Your task to perform on an android device: toggle data saver in the chrome app Image 0: 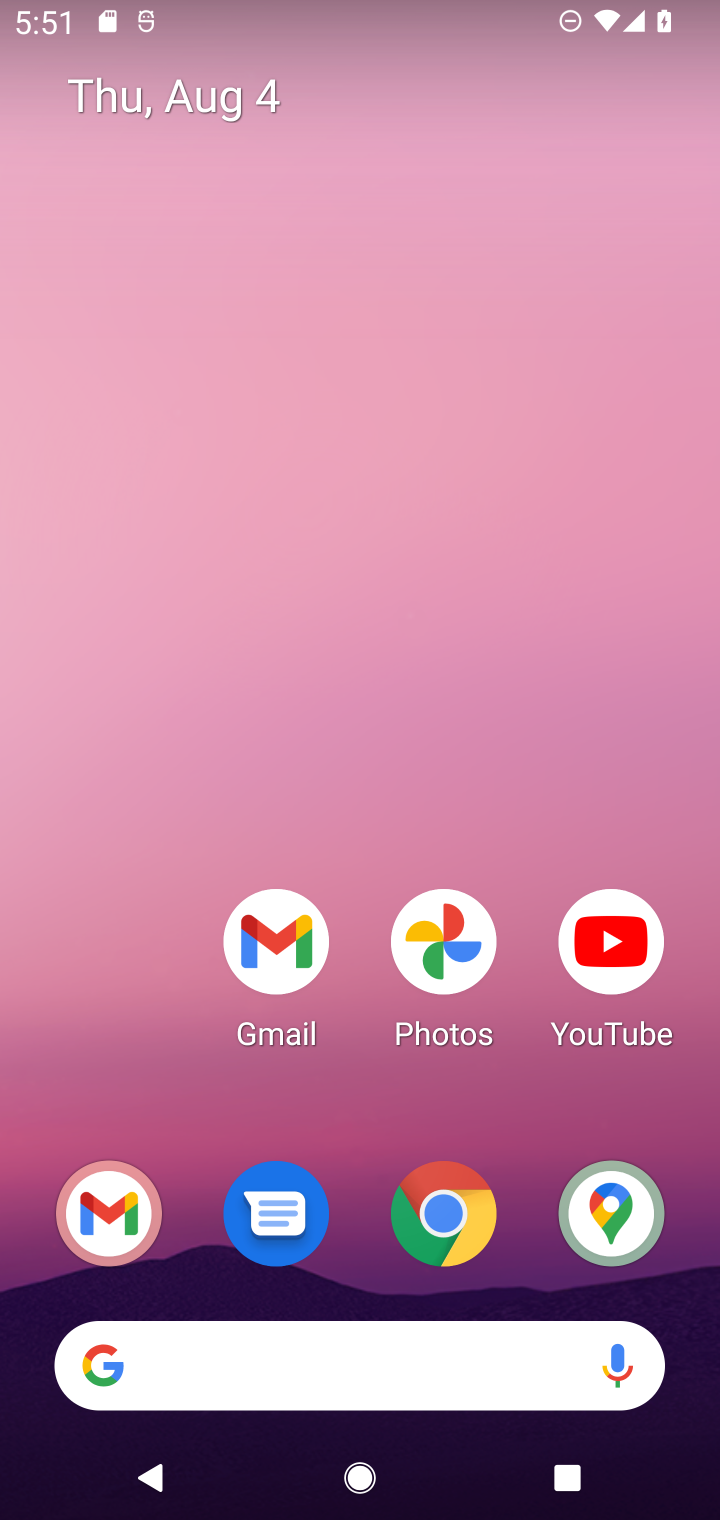
Step 0: press home button
Your task to perform on an android device: toggle data saver in the chrome app Image 1: 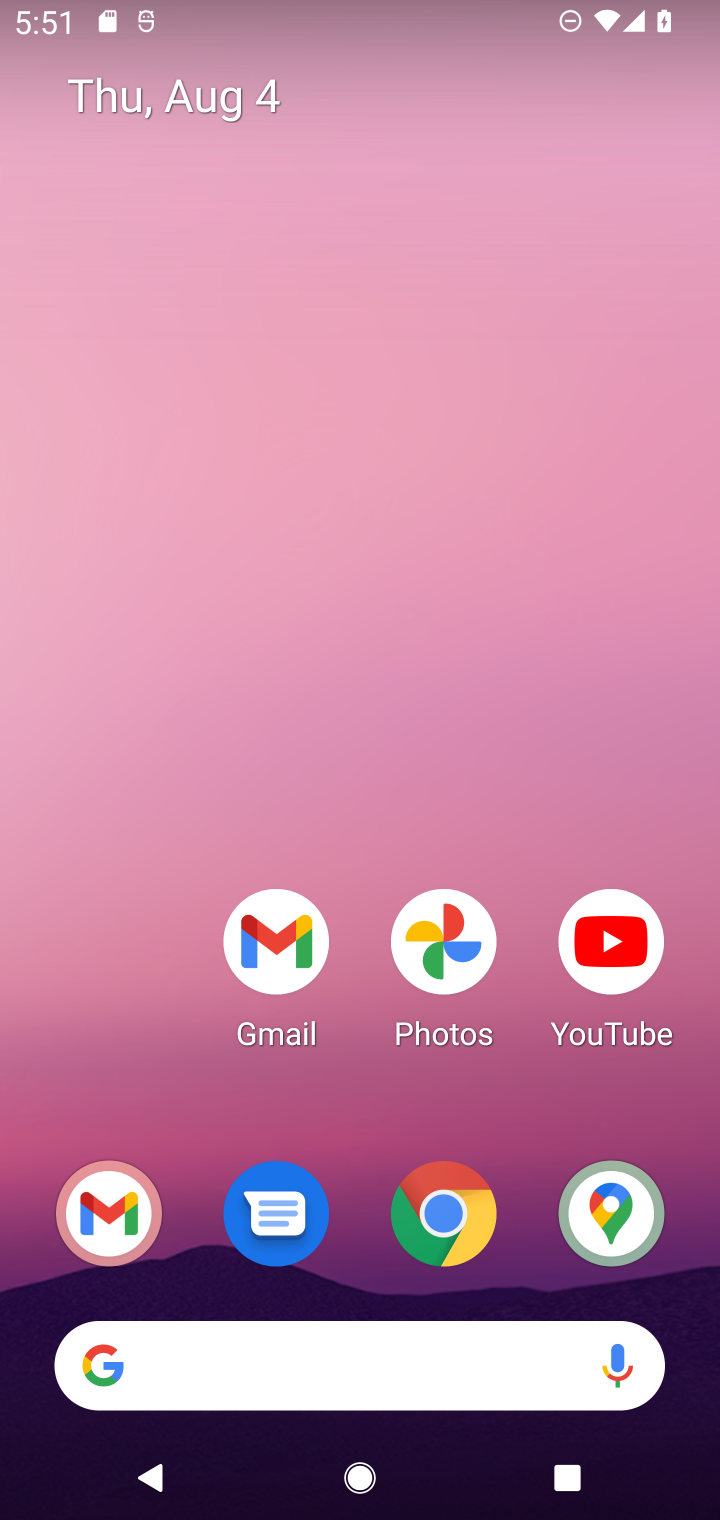
Step 1: drag from (162, 1052) to (183, 330)
Your task to perform on an android device: toggle data saver in the chrome app Image 2: 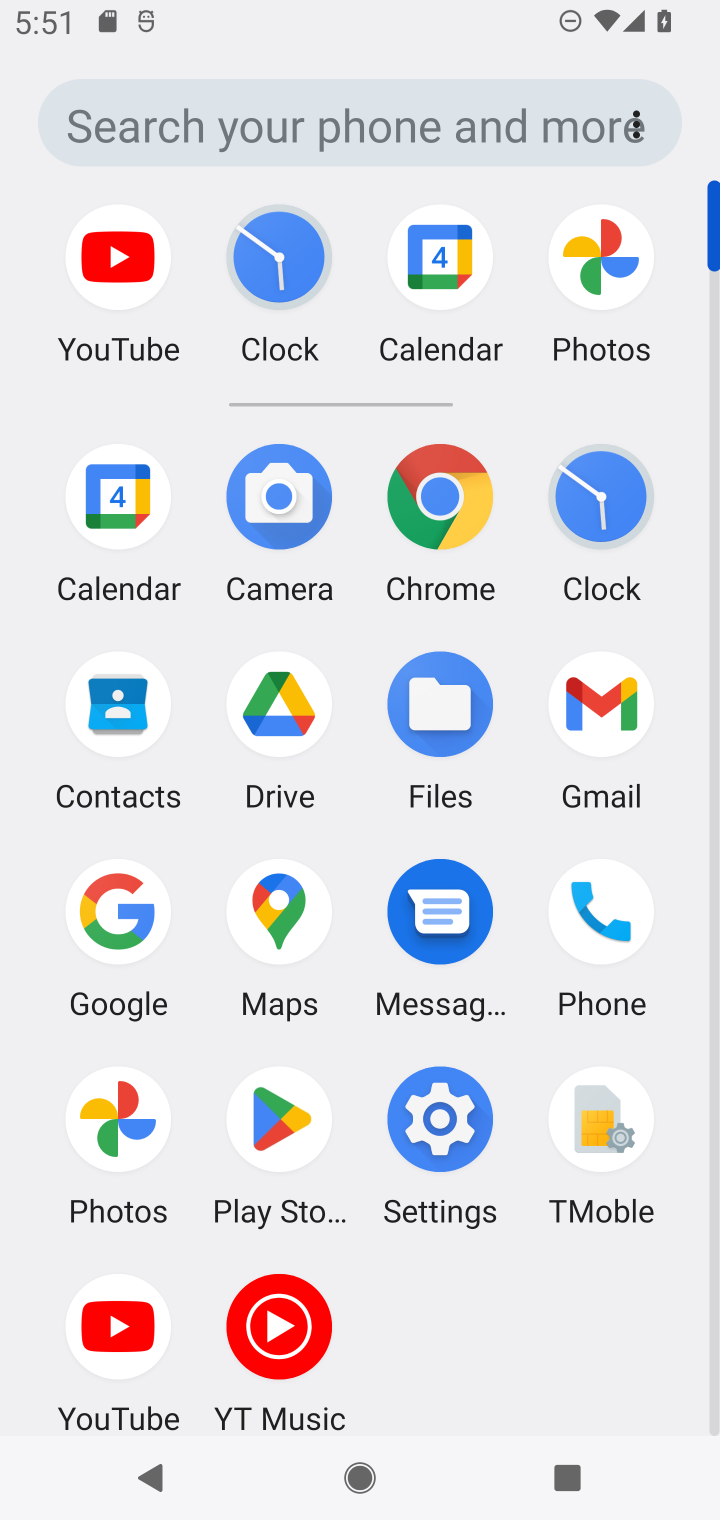
Step 2: click (465, 510)
Your task to perform on an android device: toggle data saver in the chrome app Image 3: 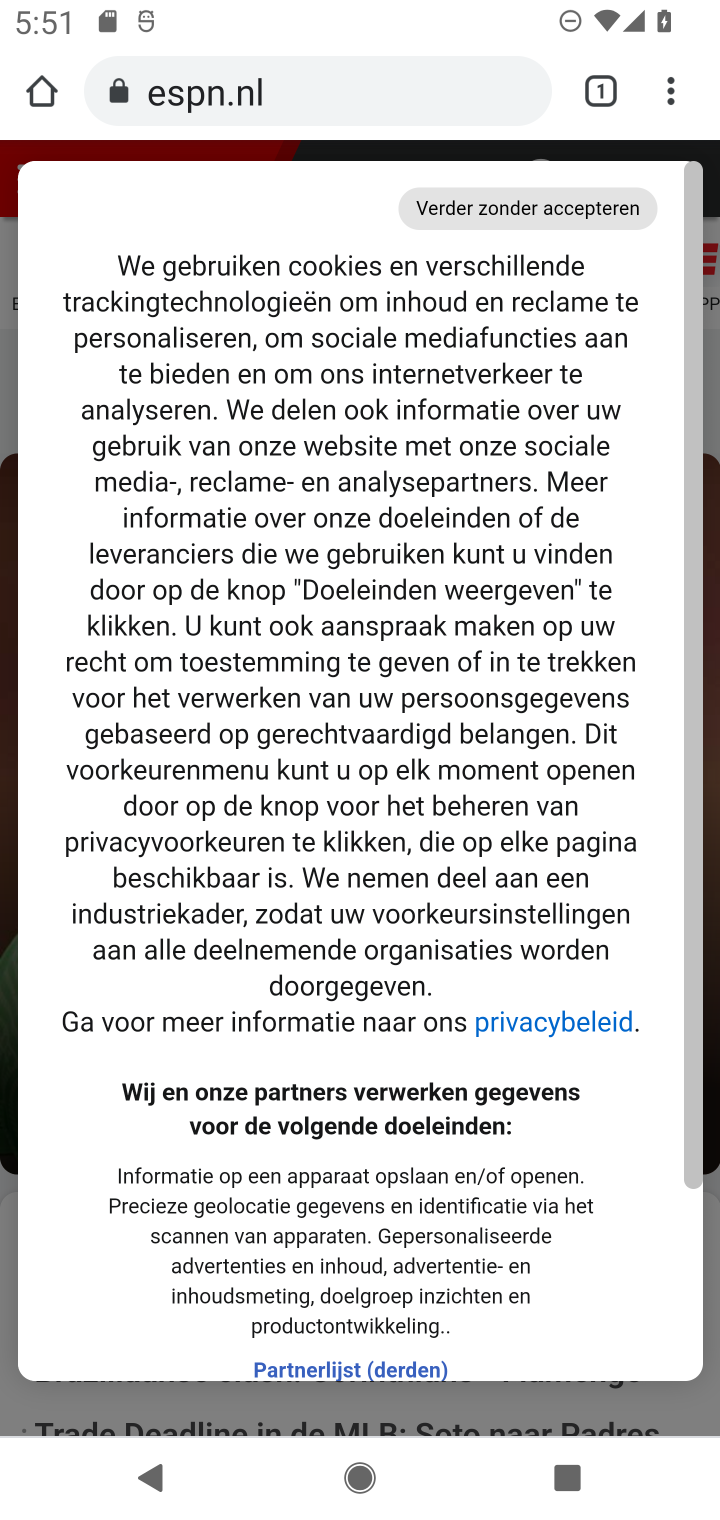
Step 3: click (668, 91)
Your task to perform on an android device: toggle data saver in the chrome app Image 4: 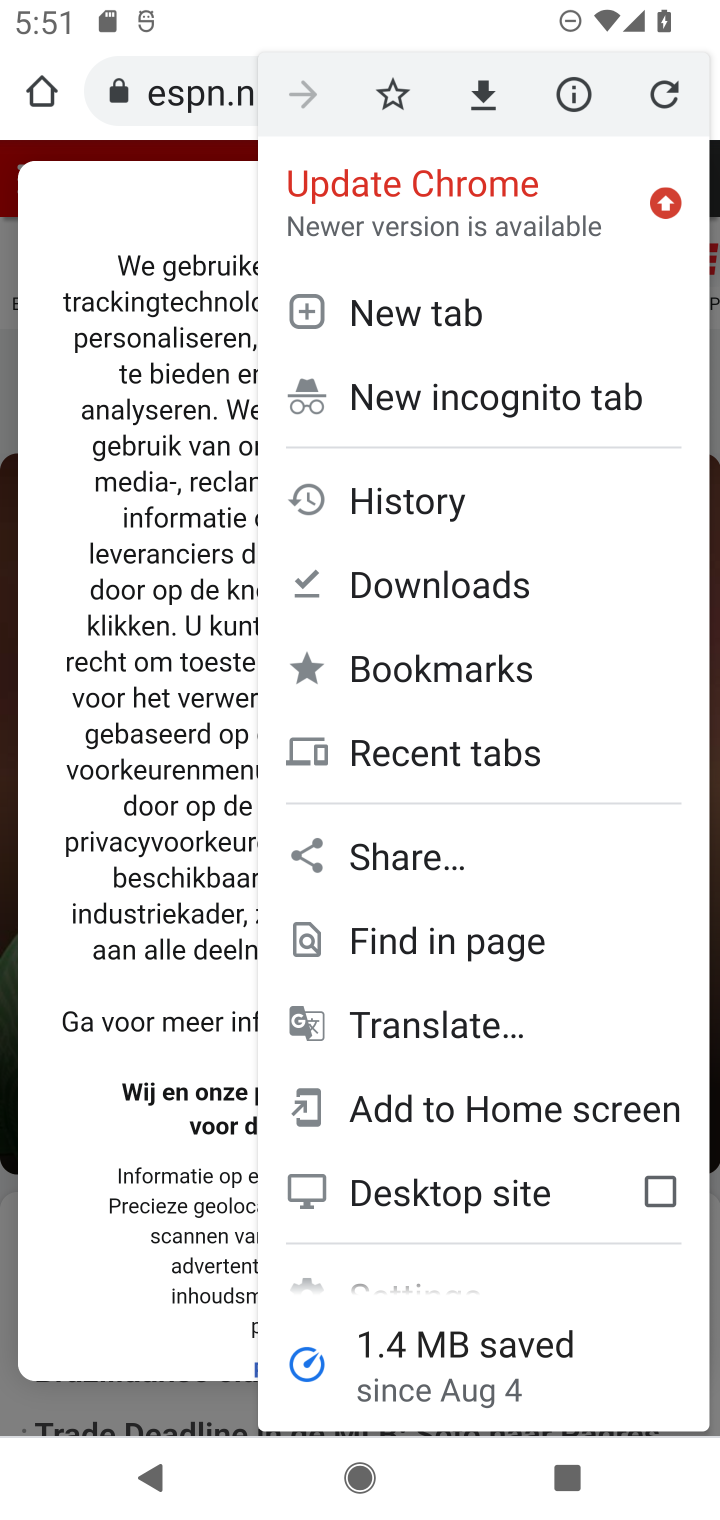
Step 4: drag from (596, 1020) to (600, 748)
Your task to perform on an android device: toggle data saver in the chrome app Image 5: 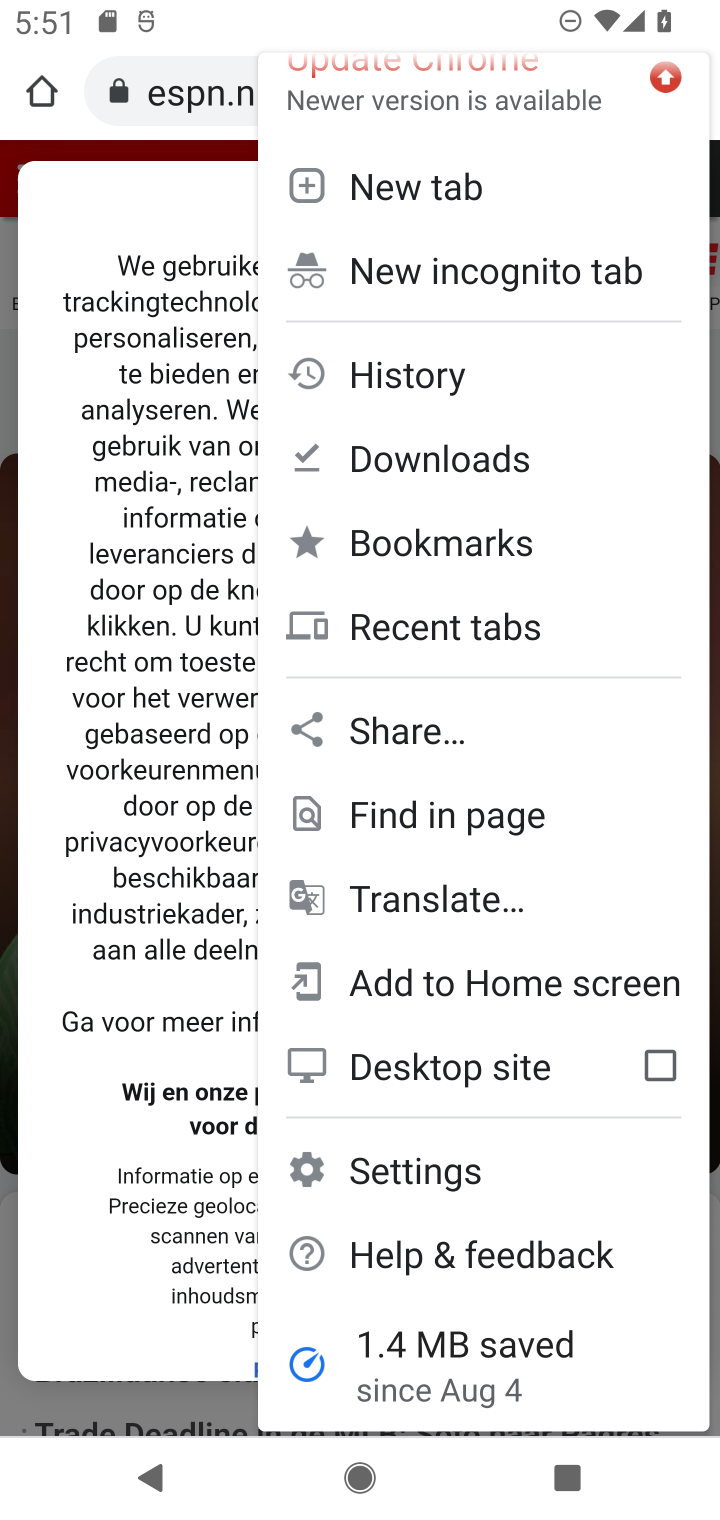
Step 5: click (531, 1181)
Your task to perform on an android device: toggle data saver in the chrome app Image 6: 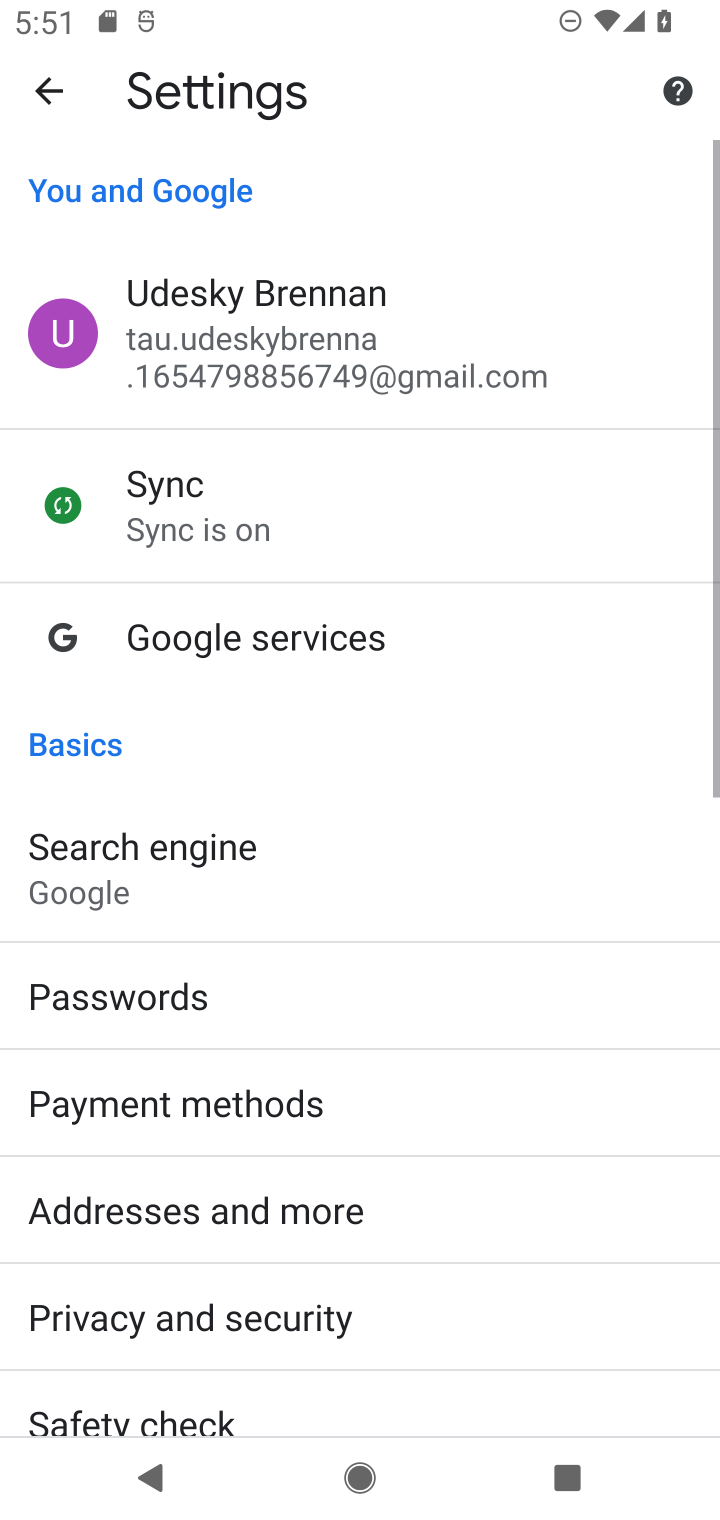
Step 6: drag from (532, 1166) to (546, 943)
Your task to perform on an android device: toggle data saver in the chrome app Image 7: 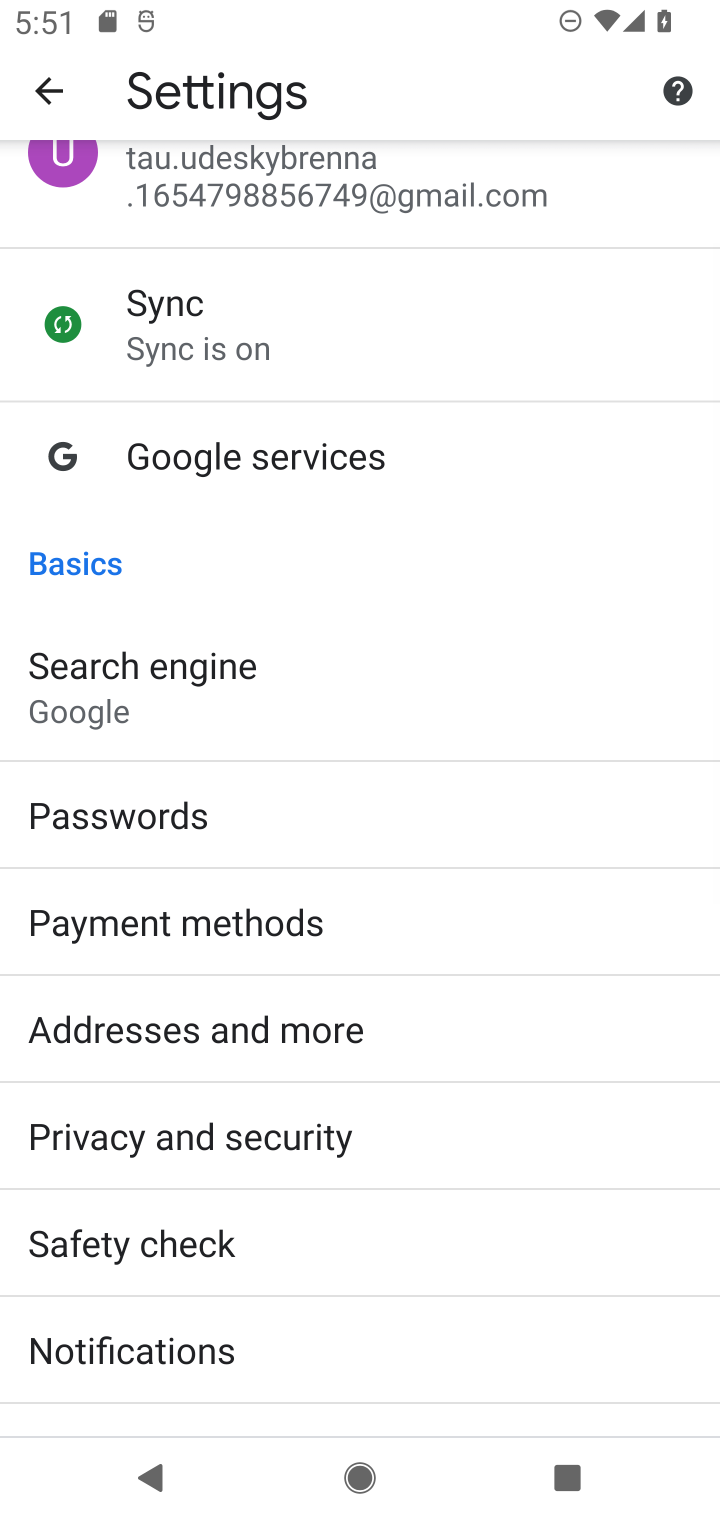
Step 7: drag from (487, 1201) to (511, 888)
Your task to perform on an android device: toggle data saver in the chrome app Image 8: 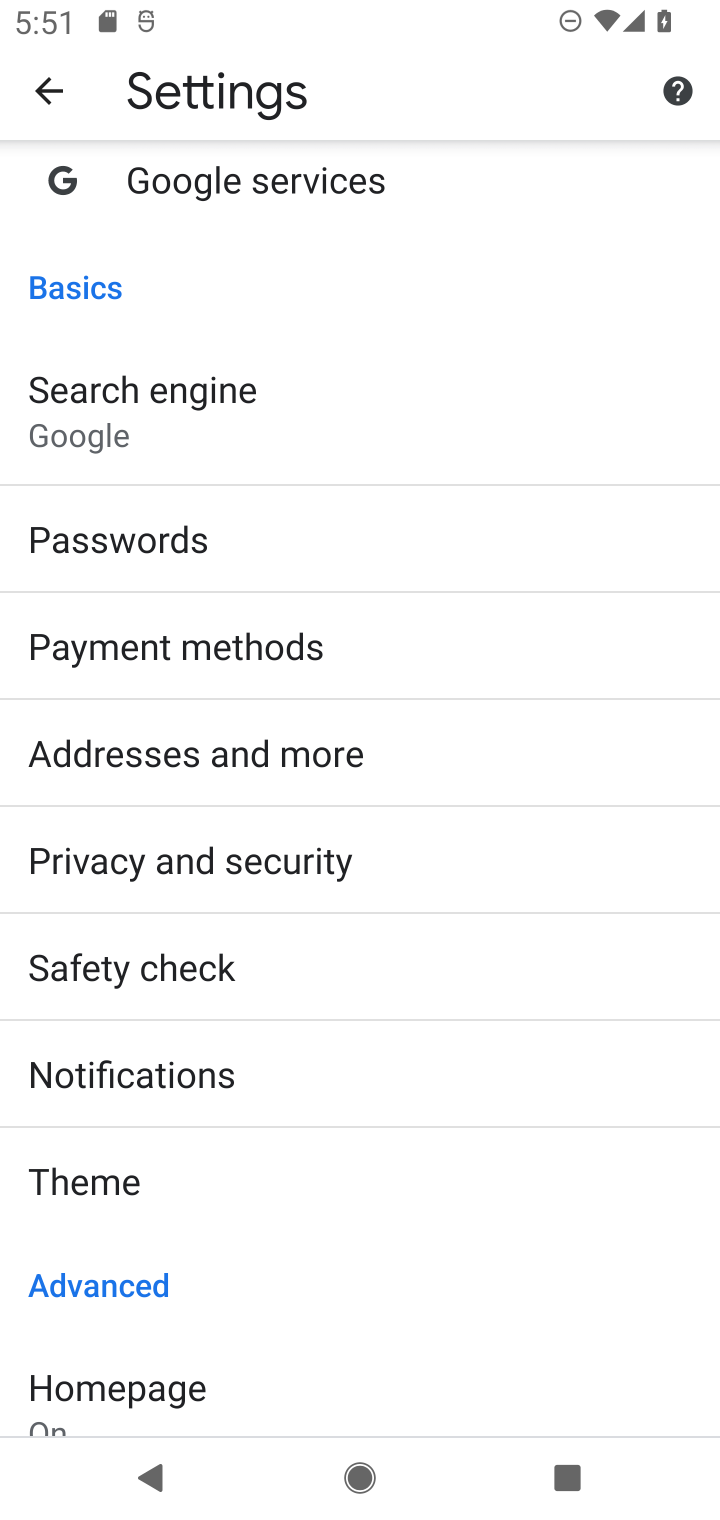
Step 8: drag from (460, 1226) to (470, 981)
Your task to perform on an android device: toggle data saver in the chrome app Image 9: 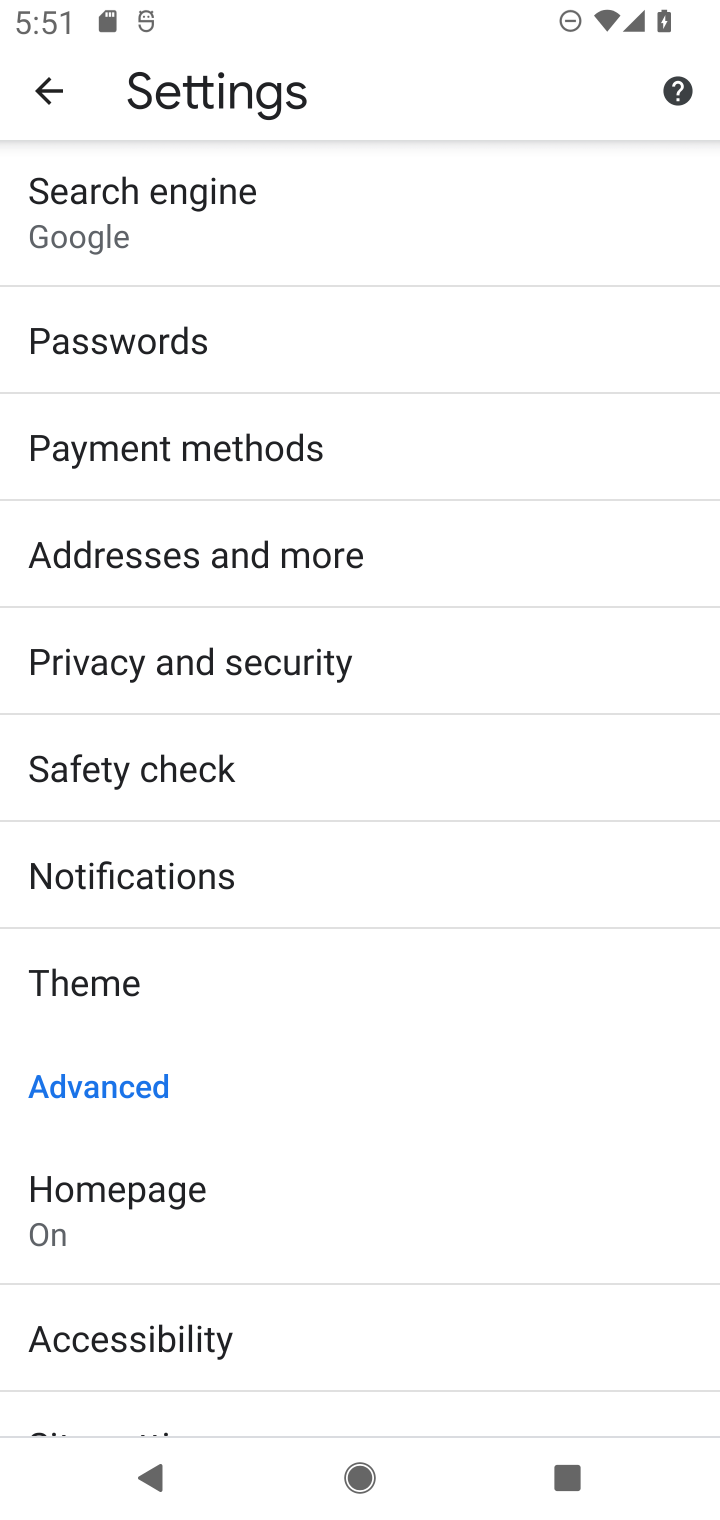
Step 9: drag from (470, 1229) to (498, 891)
Your task to perform on an android device: toggle data saver in the chrome app Image 10: 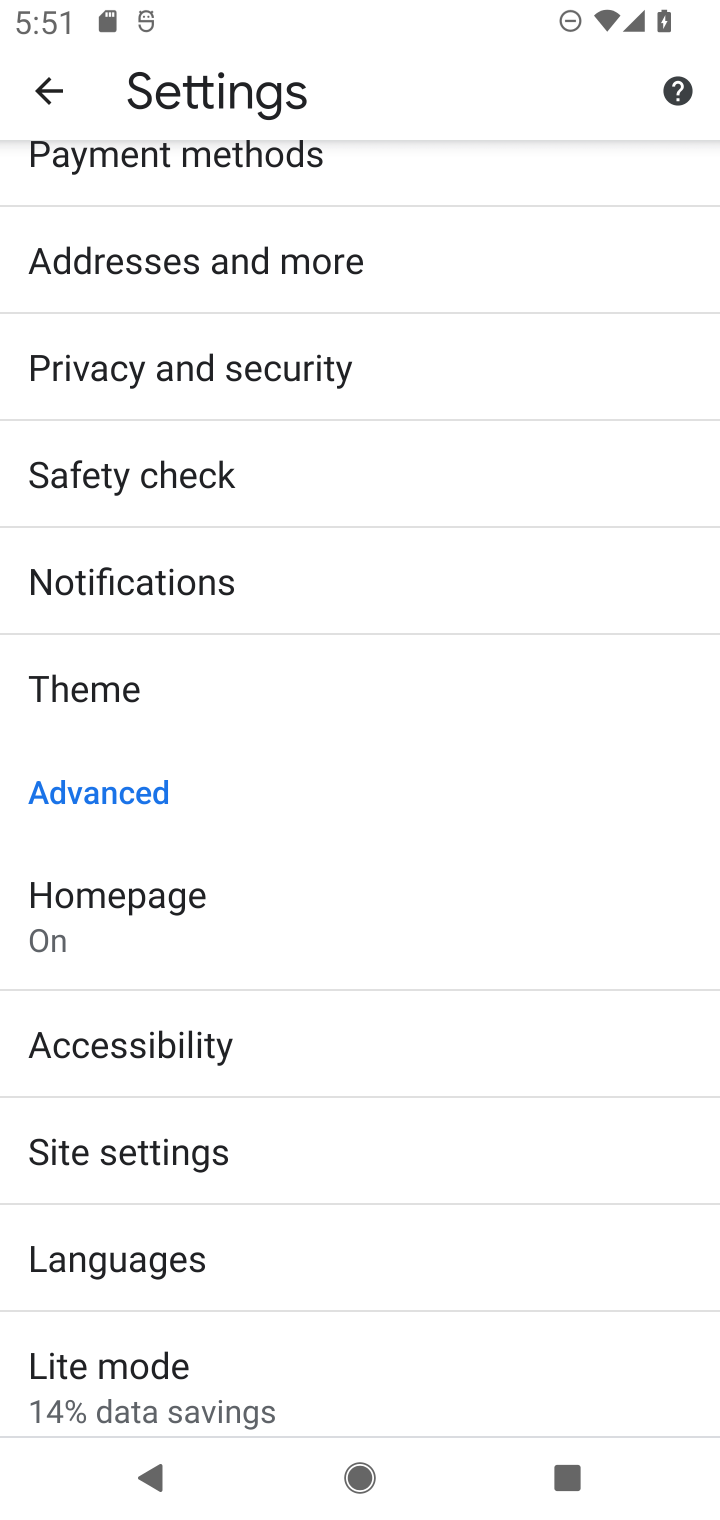
Step 10: drag from (490, 1338) to (511, 957)
Your task to perform on an android device: toggle data saver in the chrome app Image 11: 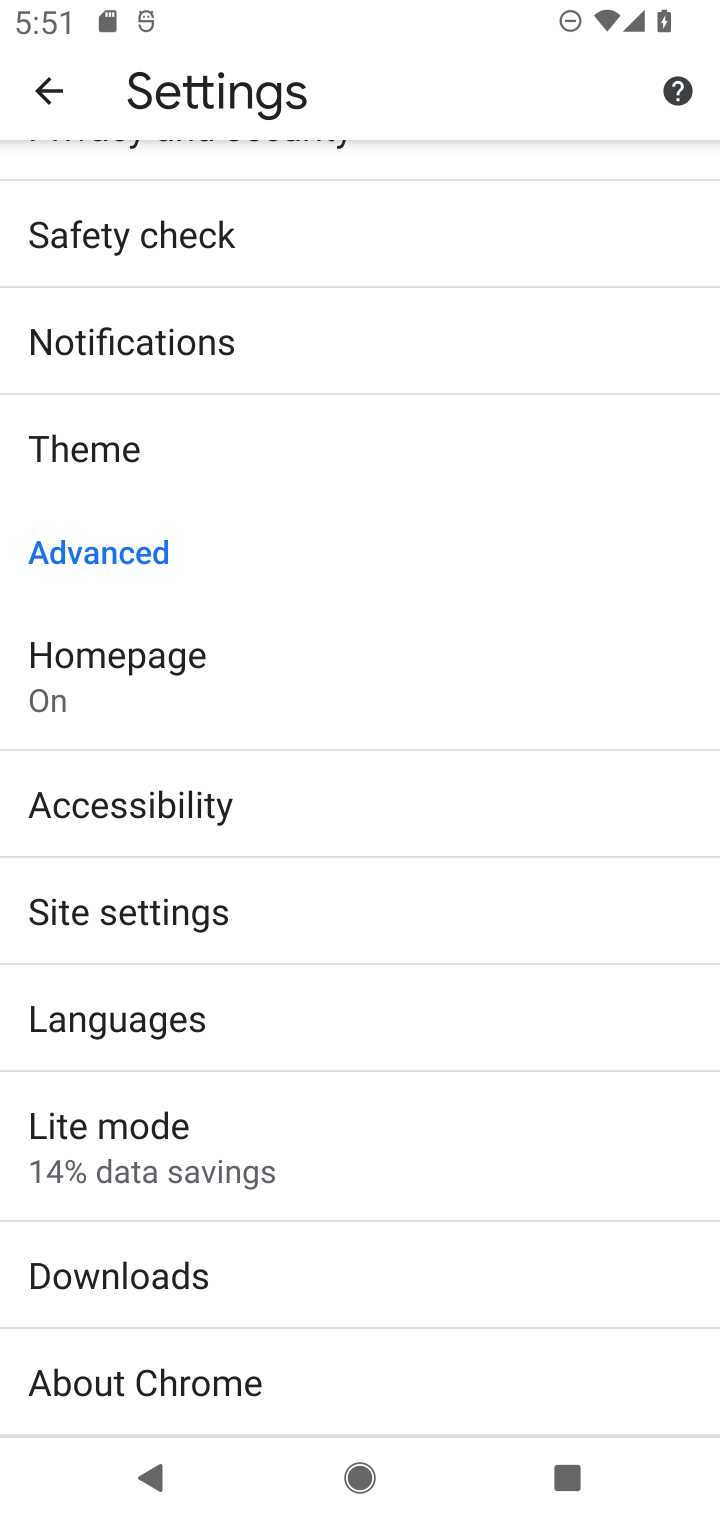
Step 11: click (485, 1164)
Your task to perform on an android device: toggle data saver in the chrome app Image 12: 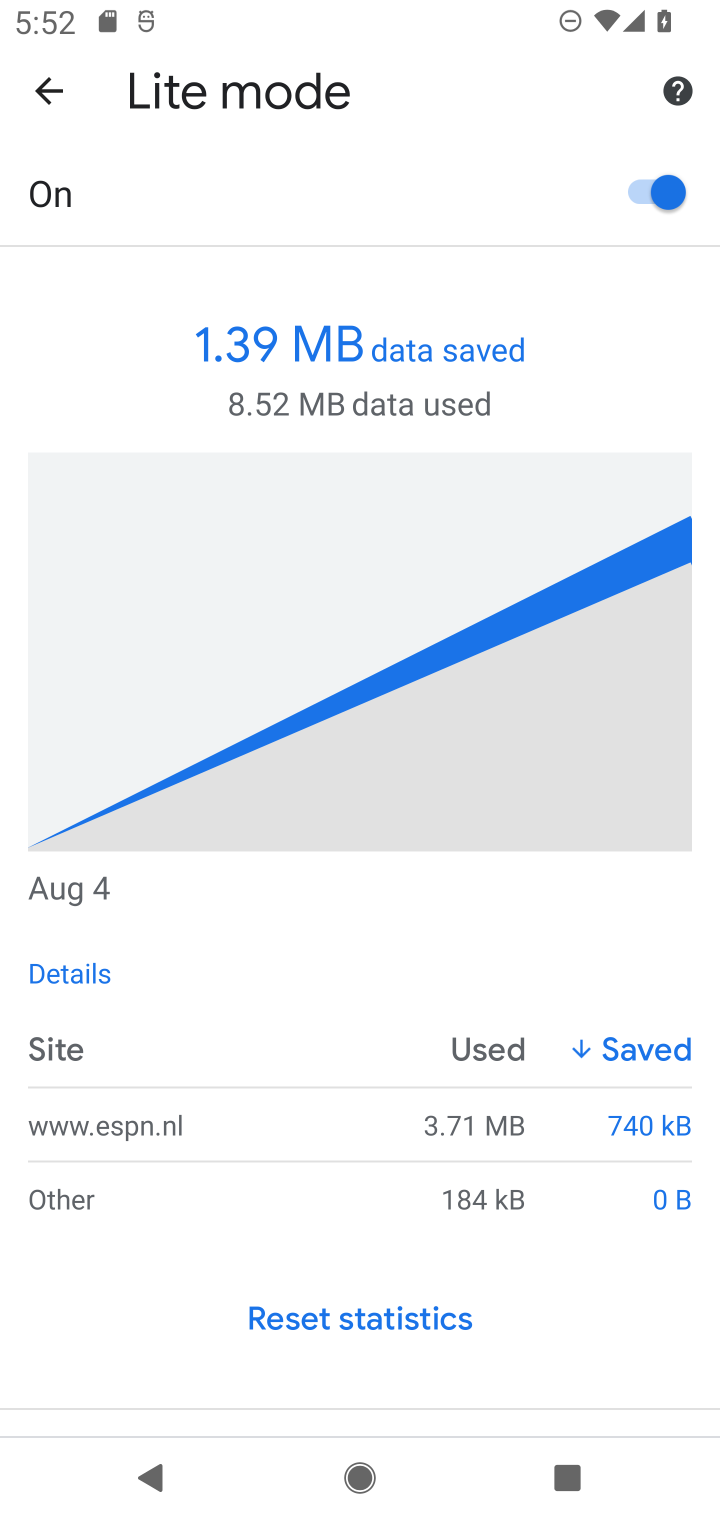
Step 12: click (655, 197)
Your task to perform on an android device: toggle data saver in the chrome app Image 13: 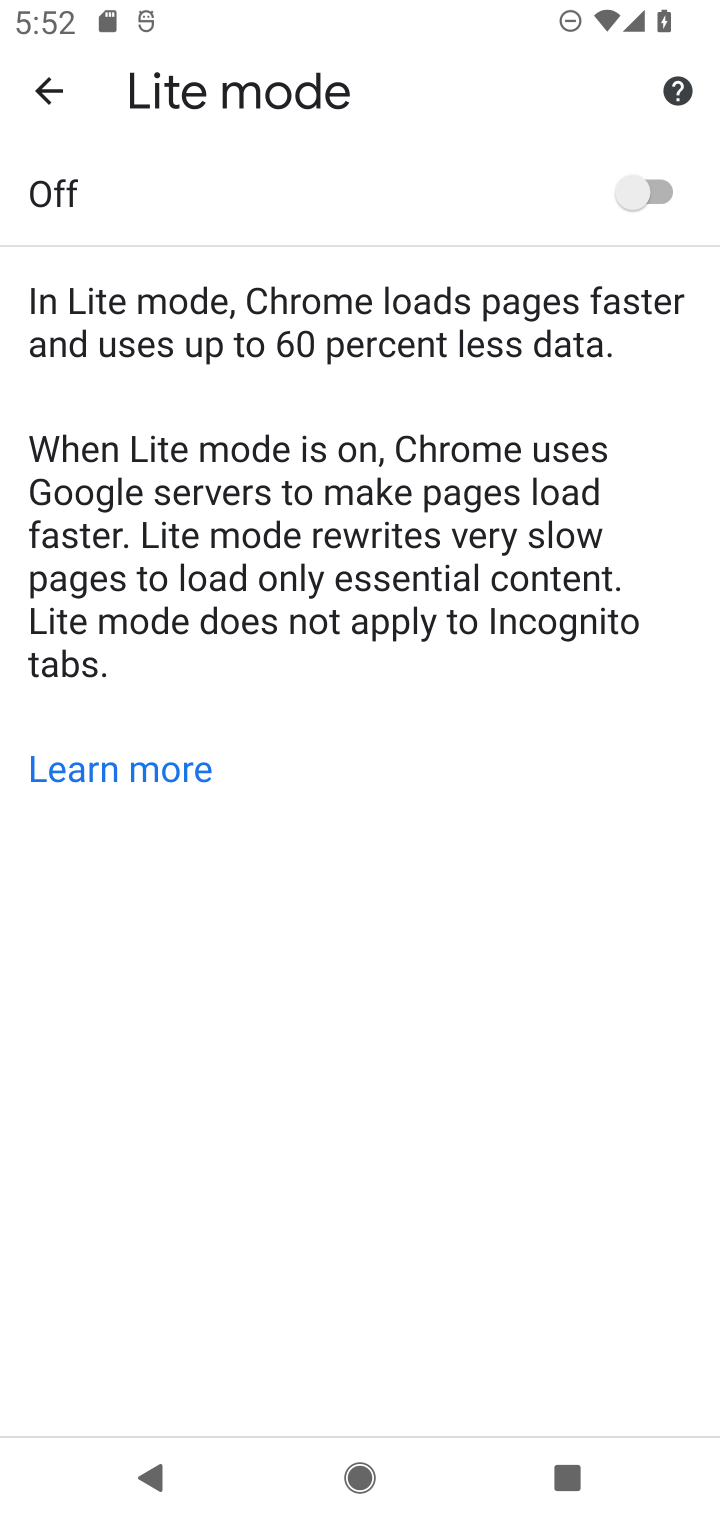
Step 13: task complete